Your task to perform on an android device: Search for vegetarian restaurants on Maps Image 0: 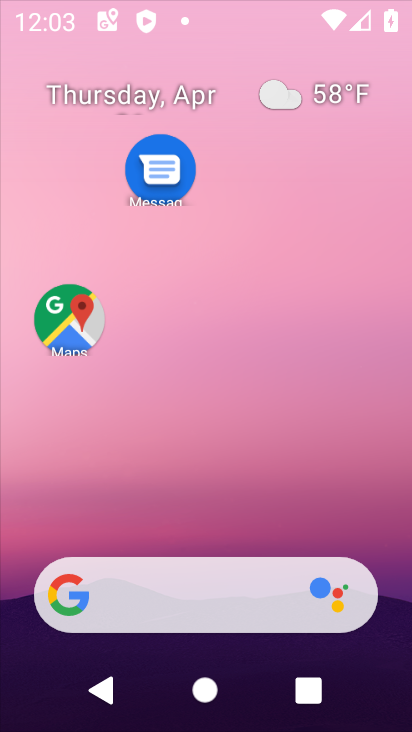
Step 0: click (198, 145)
Your task to perform on an android device: Search for vegetarian restaurants on Maps Image 1: 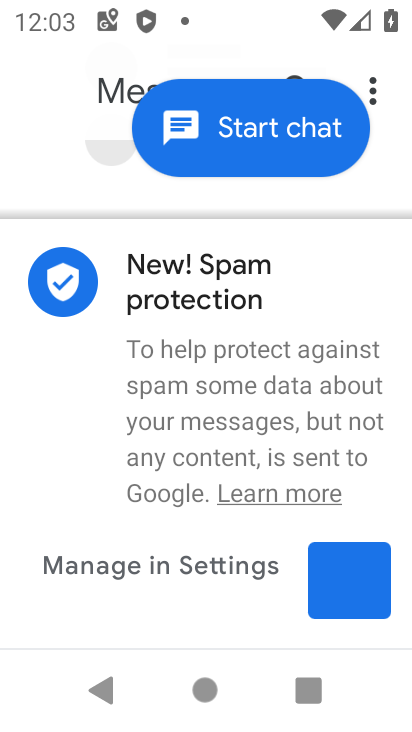
Step 1: drag from (155, 576) to (198, 140)
Your task to perform on an android device: Search for vegetarian restaurants on Maps Image 2: 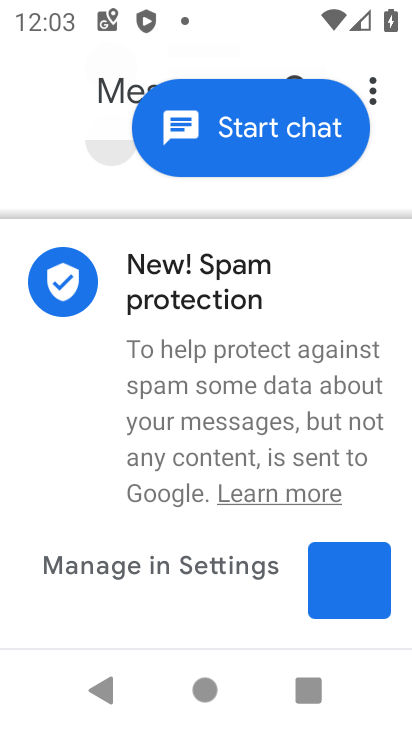
Step 2: drag from (268, 330) to (383, 725)
Your task to perform on an android device: Search for vegetarian restaurants on Maps Image 3: 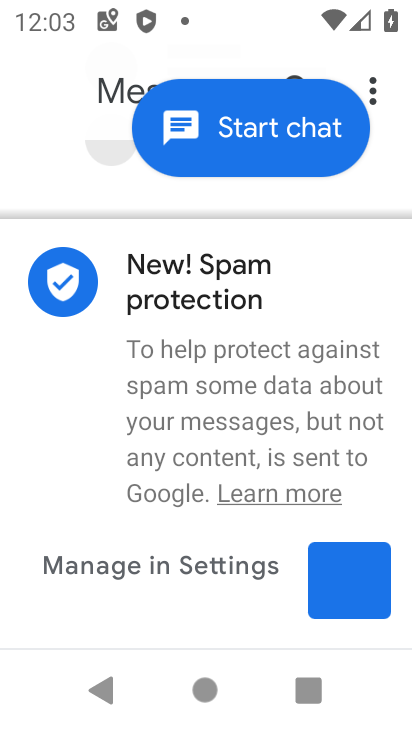
Step 3: press home button
Your task to perform on an android device: Search for vegetarian restaurants on Maps Image 4: 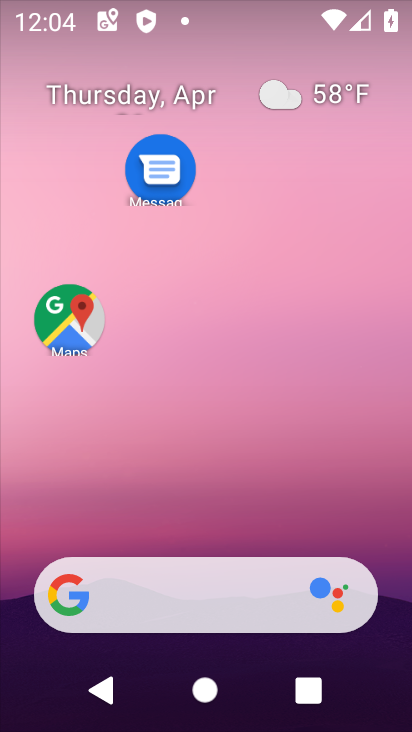
Step 4: drag from (172, 470) to (337, 55)
Your task to perform on an android device: Search for vegetarian restaurants on Maps Image 5: 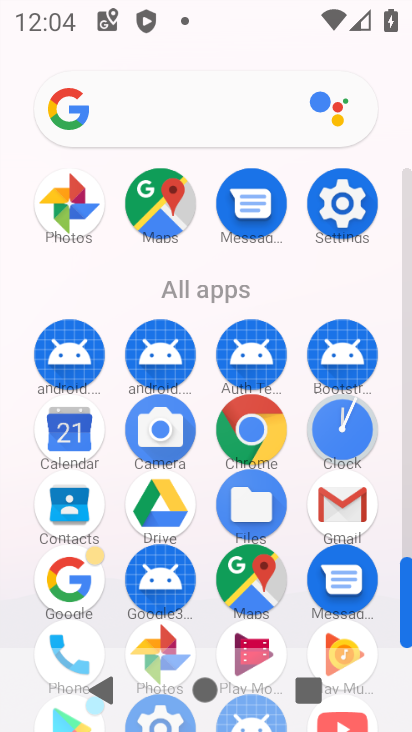
Step 5: click (147, 224)
Your task to perform on an android device: Search for vegetarian restaurants on Maps Image 6: 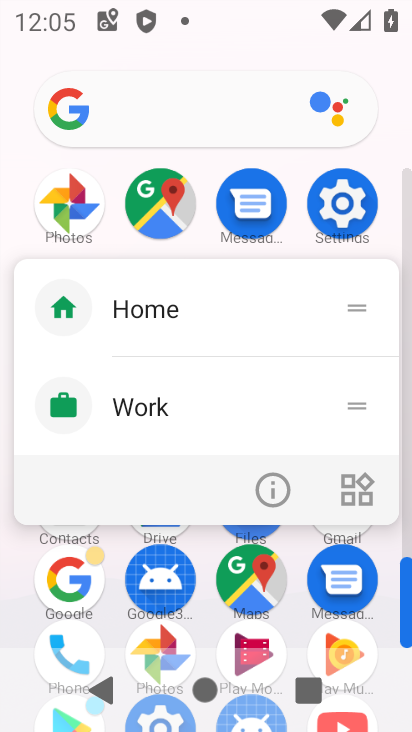
Step 6: click (268, 492)
Your task to perform on an android device: Search for vegetarian restaurants on Maps Image 7: 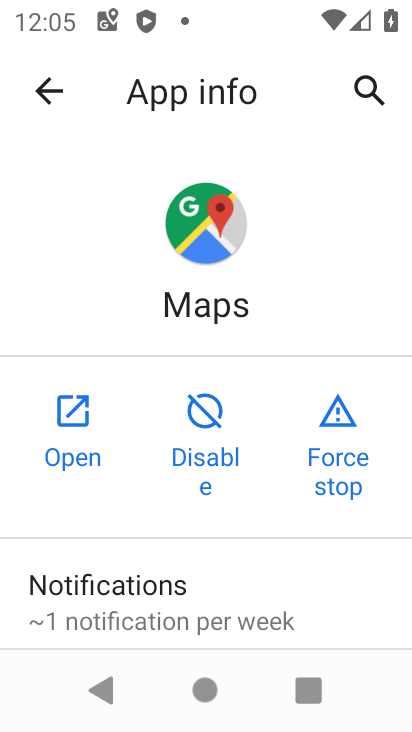
Step 7: click (44, 448)
Your task to perform on an android device: Search for vegetarian restaurants on Maps Image 8: 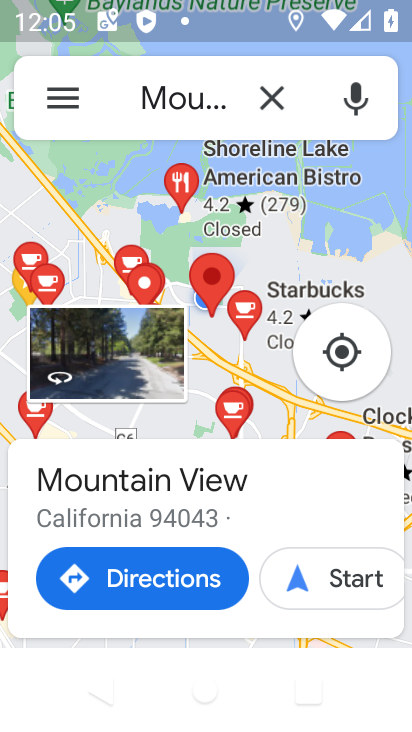
Step 8: drag from (239, 351) to (344, 179)
Your task to perform on an android device: Search for vegetarian restaurants on Maps Image 9: 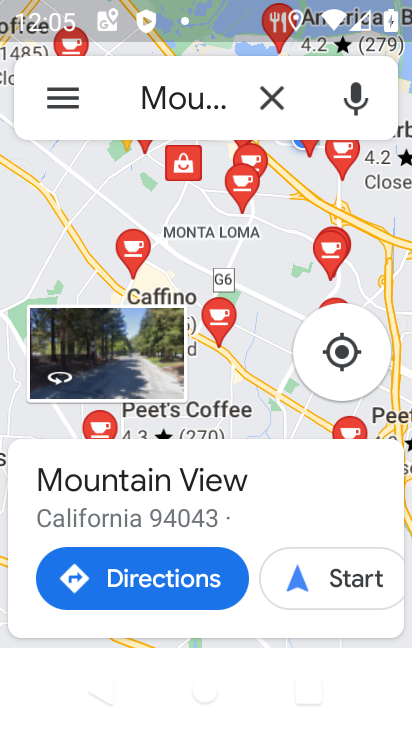
Step 9: click (285, 106)
Your task to perform on an android device: Search for vegetarian restaurants on Maps Image 10: 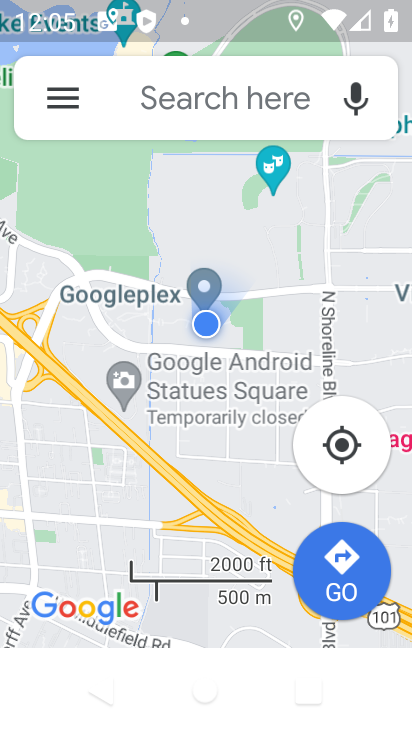
Step 10: click (237, 110)
Your task to perform on an android device: Search for vegetarian restaurants on Maps Image 11: 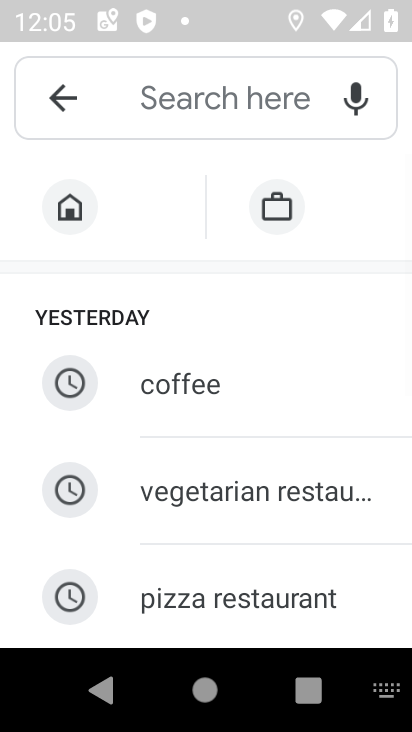
Step 11: click (247, 494)
Your task to perform on an android device: Search for vegetarian restaurants on Maps Image 12: 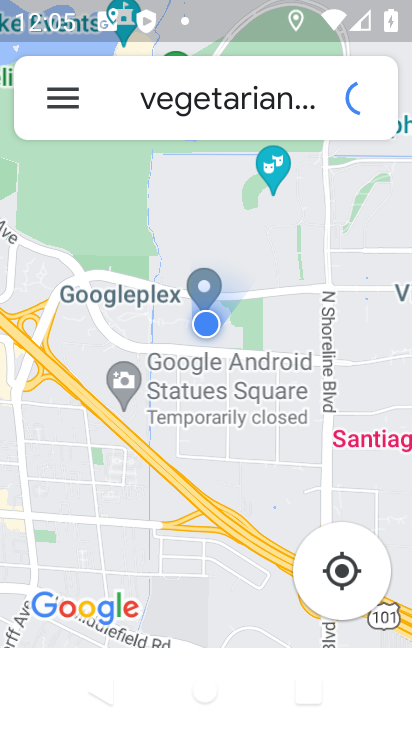
Step 12: task complete